Your task to perform on an android device: open device folders in google photos Image 0: 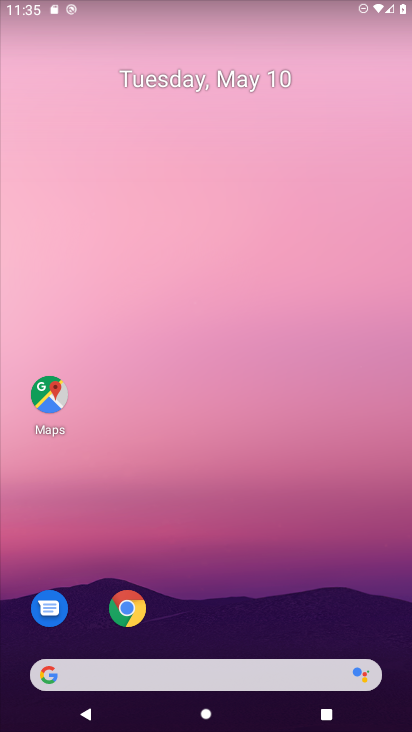
Step 0: drag from (287, 610) to (263, 60)
Your task to perform on an android device: open device folders in google photos Image 1: 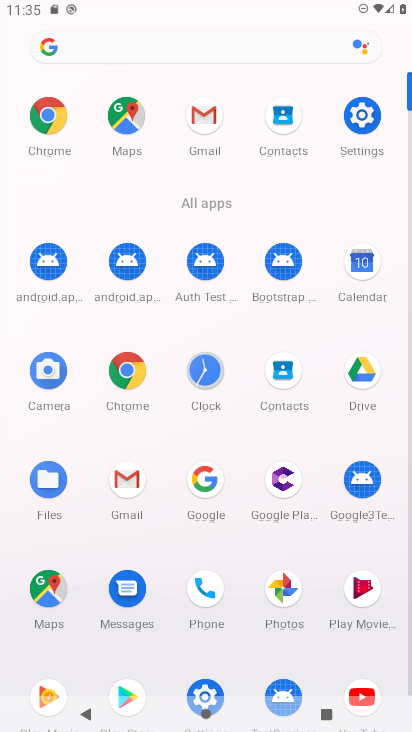
Step 1: click (286, 577)
Your task to perform on an android device: open device folders in google photos Image 2: 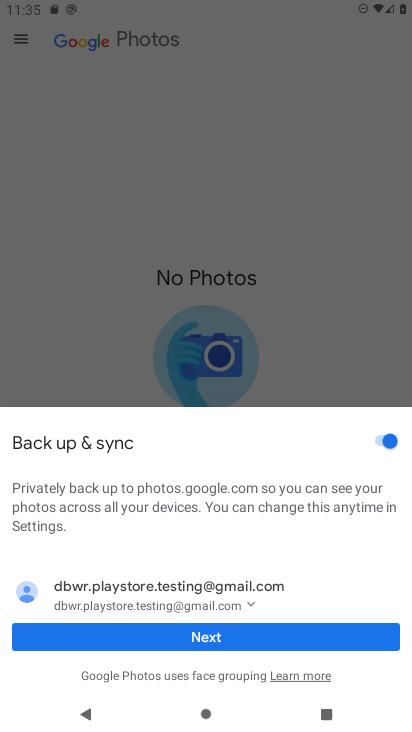
Step 2: click (302, 639)
Your task to perform on an android device: open device folders in google photos Image 3: 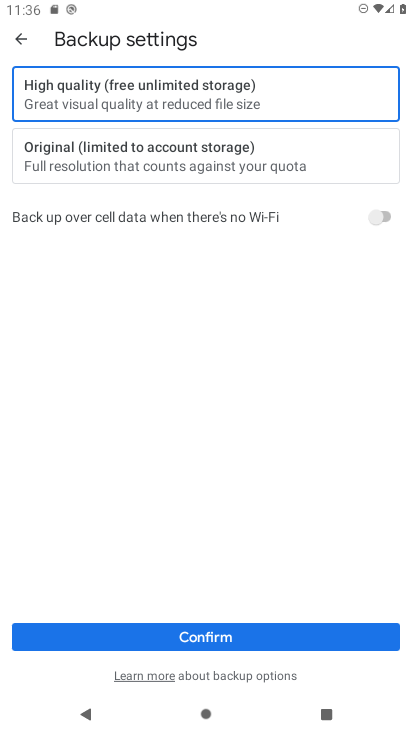
Step 3: click (302, 641)
Your task to perform on an android device: open device folders in google photos Image 4: 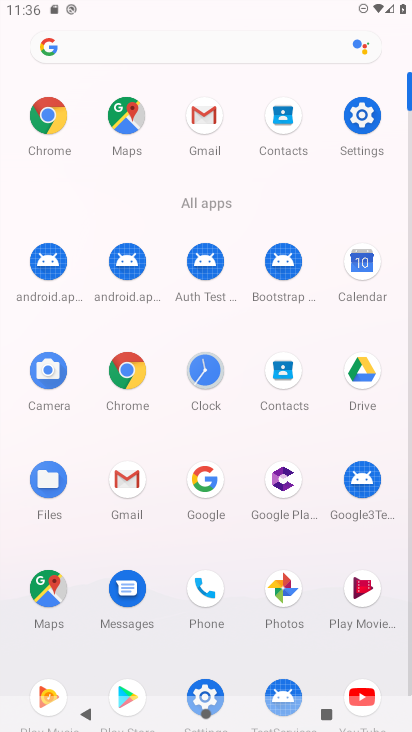
Step 4: click (284, 587)
Your task to perform on an android device: open device folders in google photos Image 5: 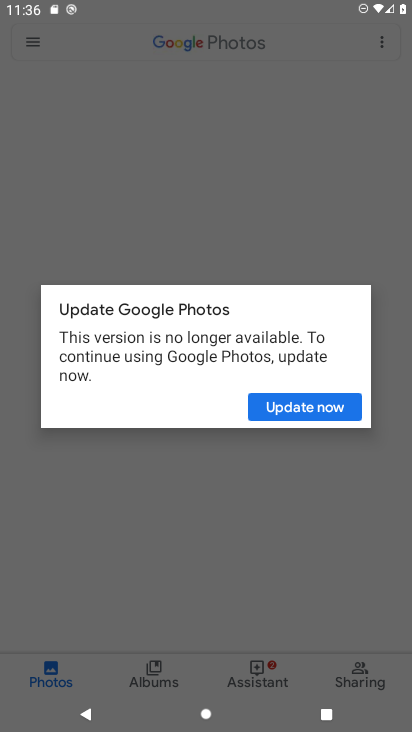
Step 5: click (299, 404)
Your task to perform on an android device: open device folders in google photos Image 6: 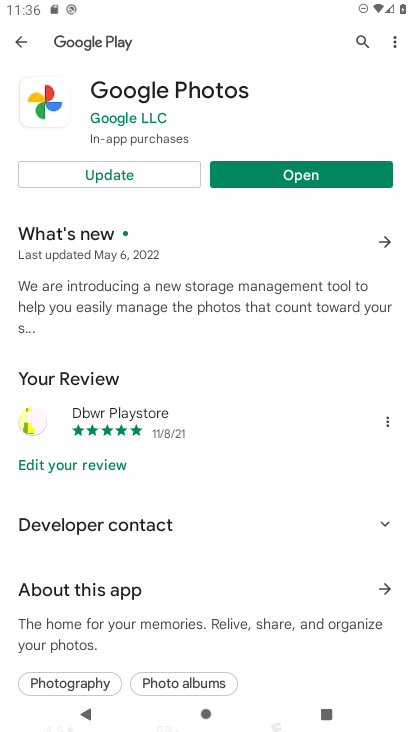
Step 6: click (309, 179)
Your task to perform on an android device: open device folders in google photos Image 7: 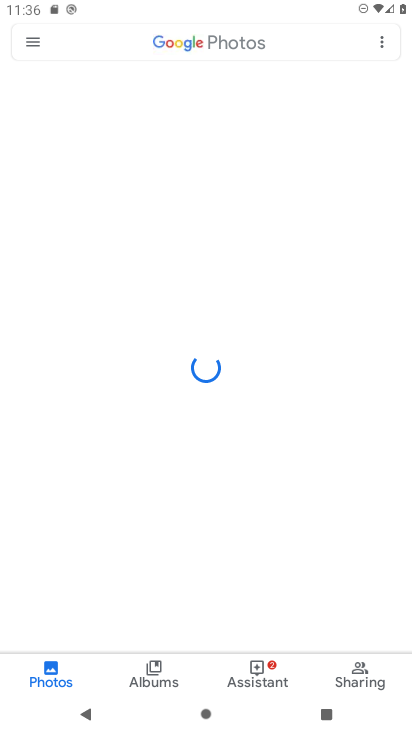
Step 7: click (26, 37)
Your task to perform on an android device: open device folders in google photos Image 8: 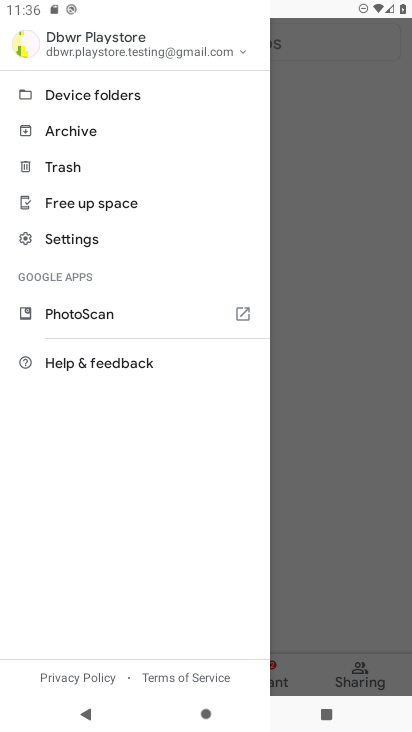
Step 8: click (55, 92)
Your task to perform on an android device: open device folders in google photos Image 9: 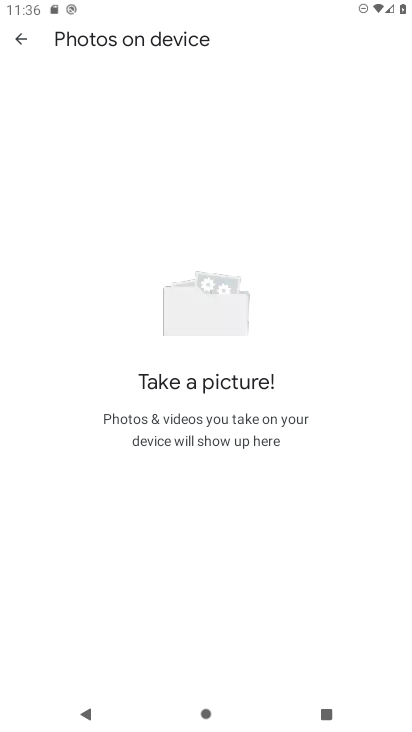
Step 9: task complete